Your task to perform on an android device: turn on priority inbox in the gmail app Image 0: 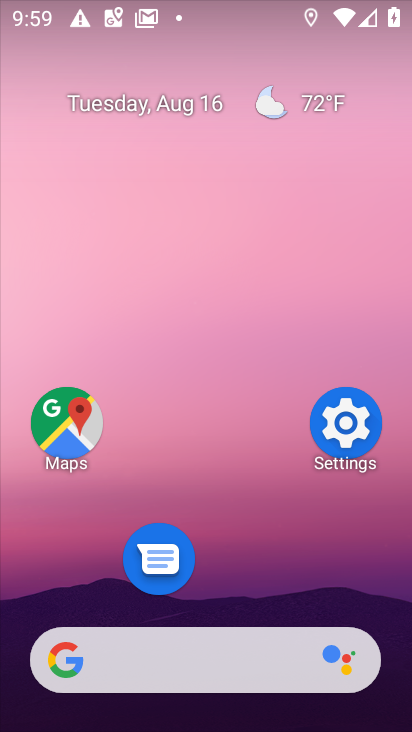
Step 0: click (404, 410)
Your task to perform on an android device: turn on priority inbox in the gmail app Image 1: 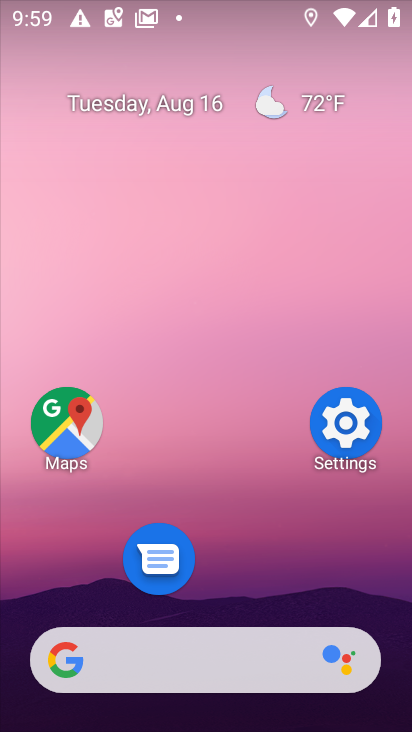
Step 1: drag from (190, 620) to (242, 129)
Your task to perform on an android device: turn on priority inbox in the gmail app Image 2: 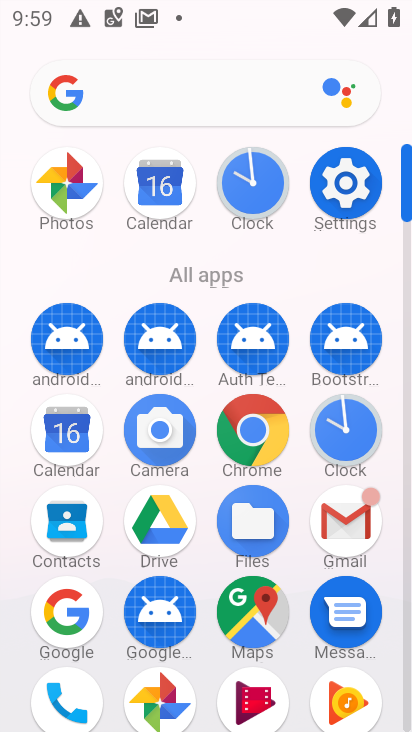
Step 2: click (347, 531)
Your task to perform on an android device: turn on priority inbox in the gmail app Image 3: 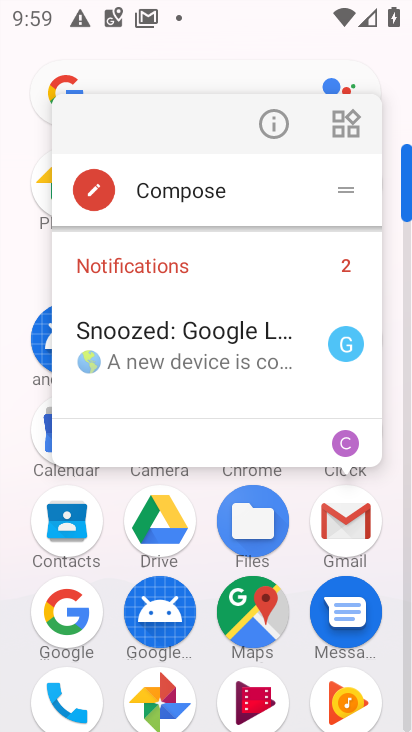
Step 3: click (347, 530)
Your task to perform on an android device: turn on priority inbox in the gmail app Image 4: 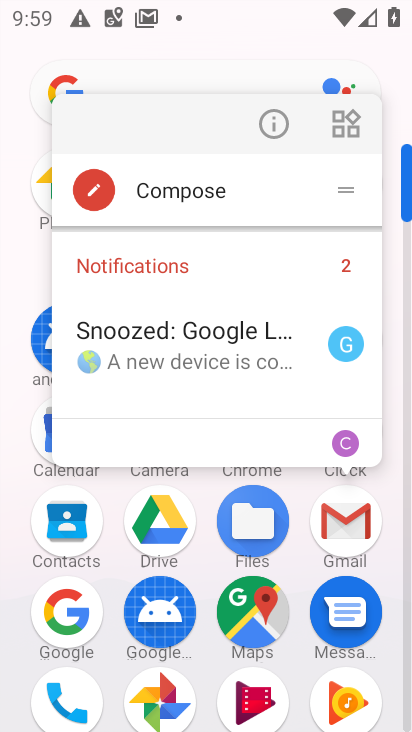
Step 4: click (340, 533)
Your task to perform on an android device: turn on priority inbox in the gmail app Image 5: 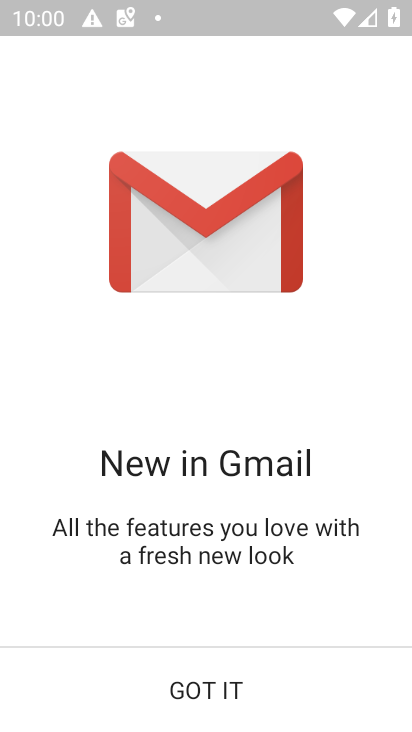
Step 5: click (196, 683)
Your task to perform on an android device: turn on priority inbox in the gmail app Image 6: 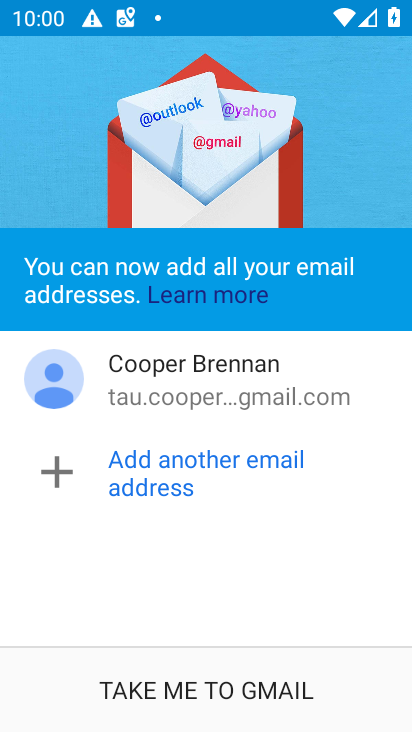
Step 6: click (196, 683)
Your task to perform on an android device: turn on priority inbox in the gmail app Image 7: 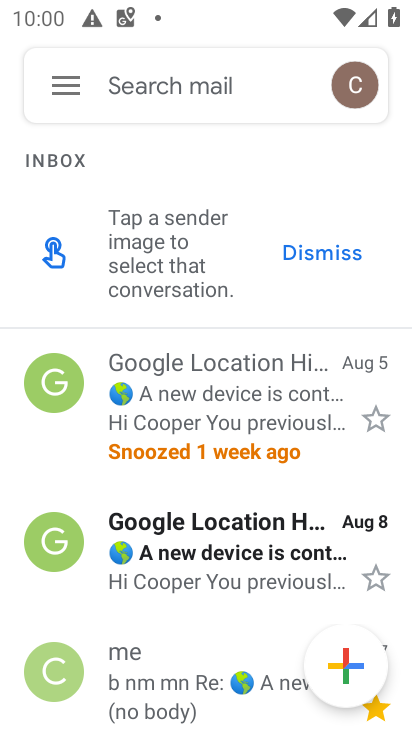
Step 7: click (68, 85)
Your task to perform on an android device: turn on priority inbox in the gmail app Image 8: 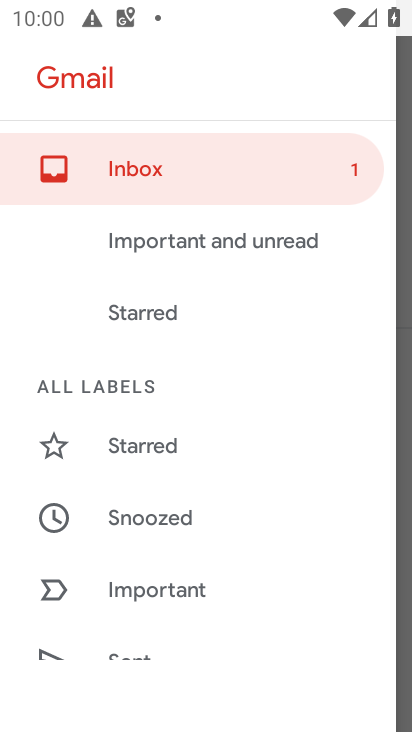
Step 8: drag from (232, 617) to (356, 65)
Your task to perform on an android device: turn on priority inbox in the gmail app Image 9: 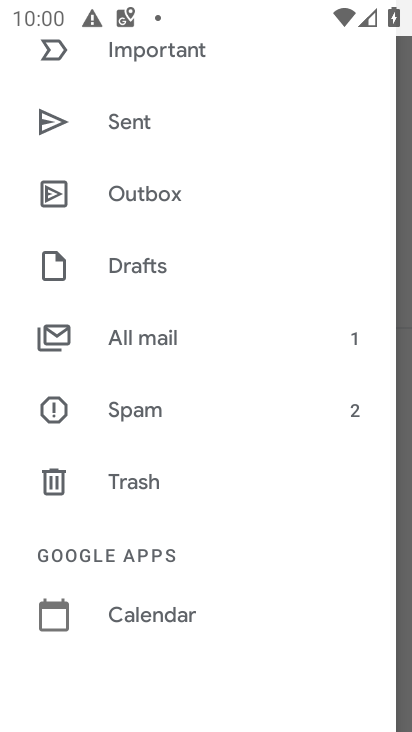
Step 9: drag from (232, 615) to (237, 157)
Your task to perform on an android device: turn on priority inbox in the gmail app Image 10: 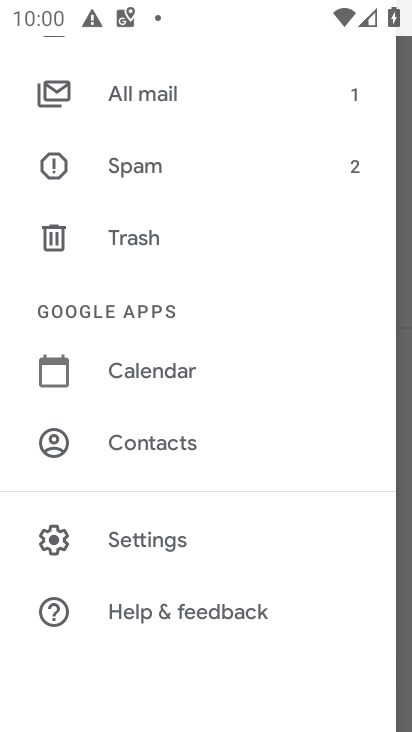
Step 10: click (163, 544)
Your task to perform on an android device: turn on priority inbox in the gmail app Image 11: 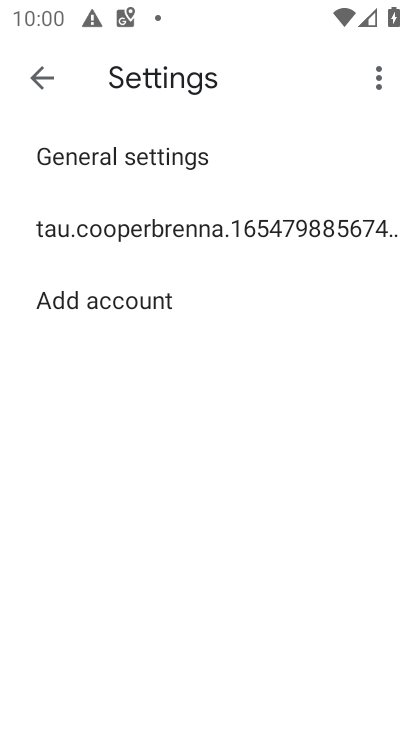
Step 11: click (200, 227)
Your task to perform on an android device: turn on priority inbox in the gmail app Image 12: 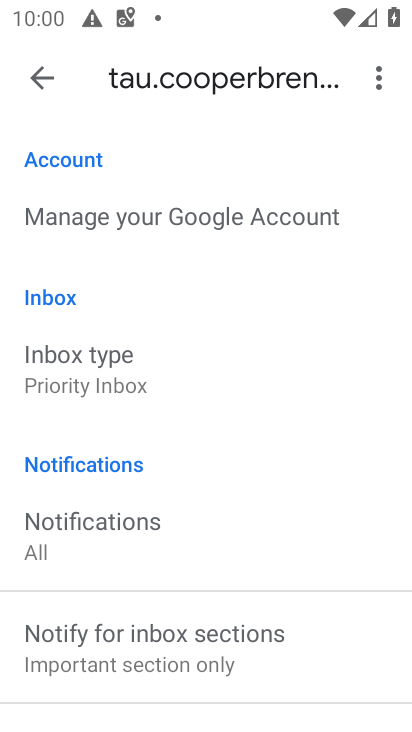
Step 12: click (66, 370)
Your task to perform on an android device: turn on priority inbox in the gmail app Image 13: 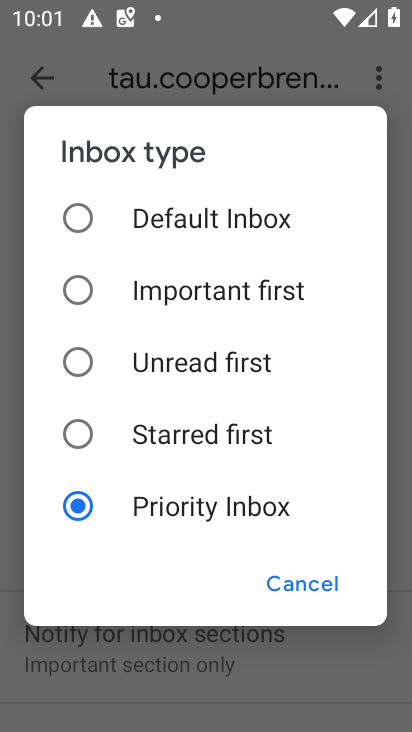
Step 13: task complete